Your task to perform on an android device: Search for a storage ottoman in the living room Image 0: 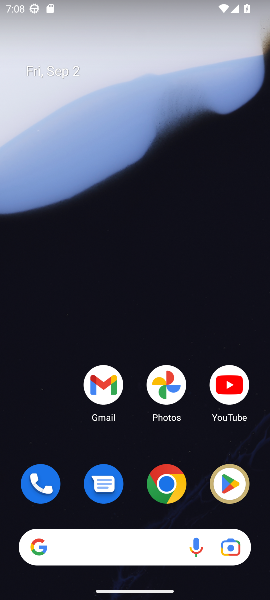
Step 0: click (171, 487)
Your task to perform on an android device: Search for a storage ottoman in the living room Image 1: 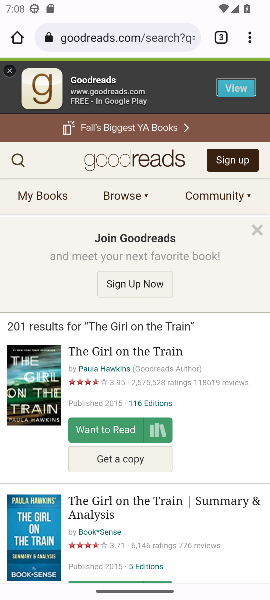
Step 1: click (173, 40)
Your task to perform on an android device: Search for a storage ottoman in the living room Image 2: 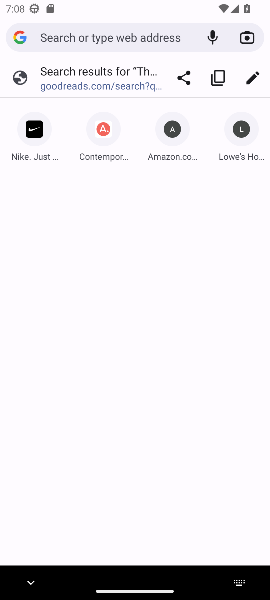
Step 2: type "storage ottoman in the living room"
Your task to perform on an android device: Search for a storage ottoman in the living room Image 3: 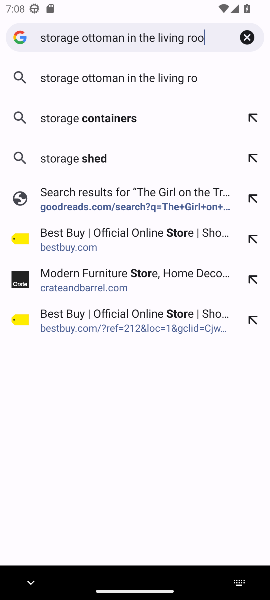
Step 3: press enter
Your task to perform on an android device: Search for a storage ottoman in the living room Image 4: 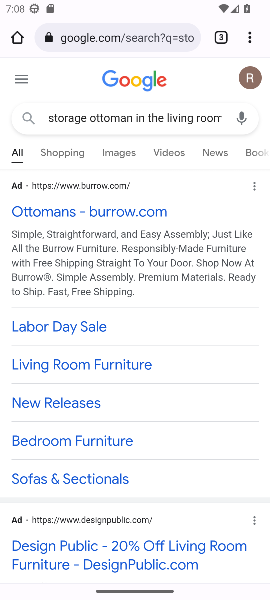
Step 4: drag from (169, 470) to (177, 276)
Your task to perform on an android device: Search for a storage ottoman in the living room Image 5: 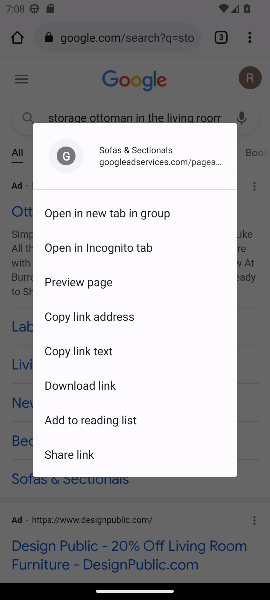
Step 5: click (260, 494)
Your task to perform on an android device: Search for a storage ottoman in the living room Image 6: 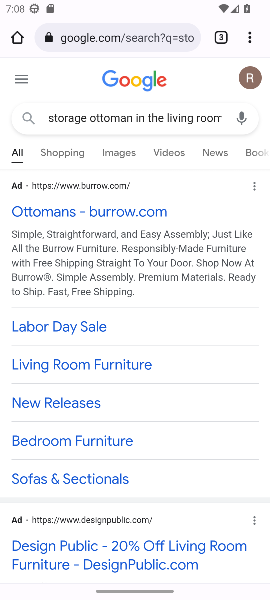
Step 6: task complete